Your task to perform on an android device: Is it going to rain today? Image 0: 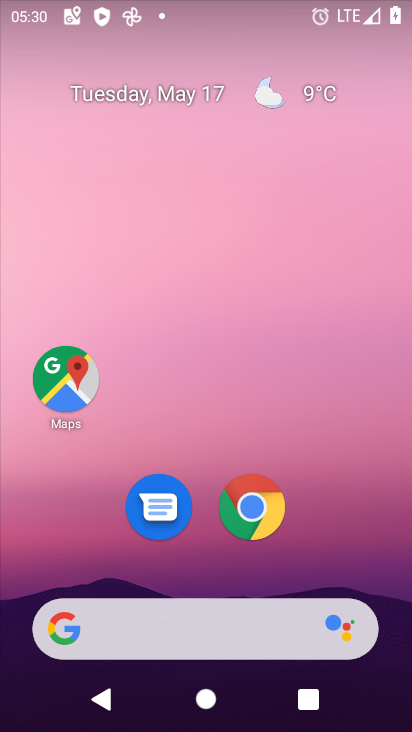
Step 0: click (272, 96)
Your task to perform on an android device: Is it going to rain today? Image 1: 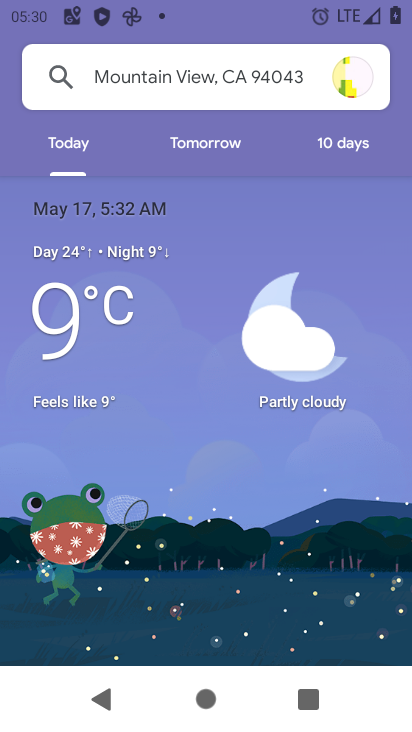
Step 1: task complete